Your task to perform on an android device: turn on data saver in the chrome app Image 0: 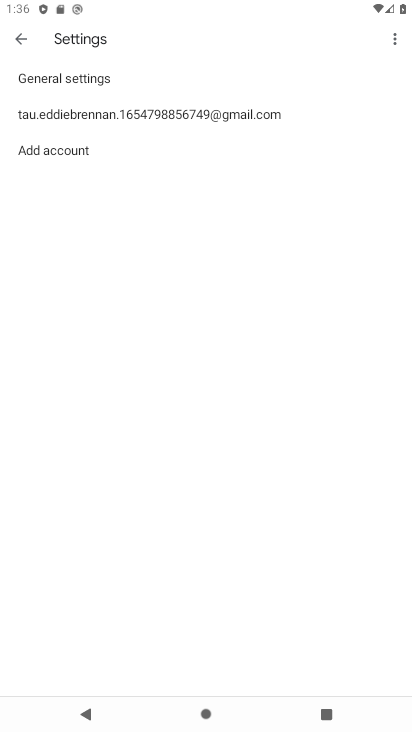
Step 0: press home button
Your task to perform on an android device: turn on data saver in the chrome app Image 1: 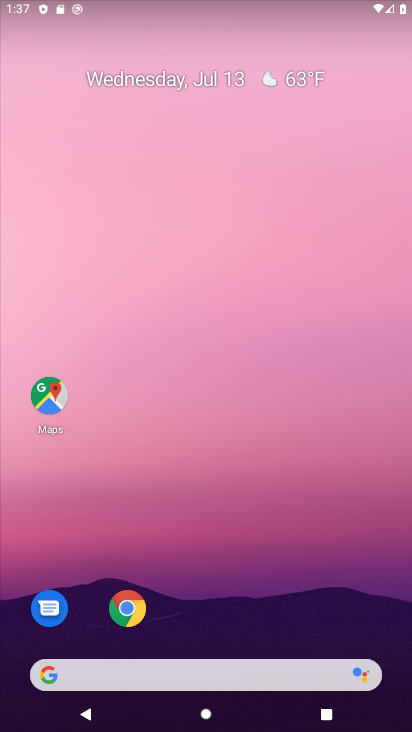
Step 1: drag from (255, 596) to (275, 6)
Your task to perform on an android device: turn on data saver in the chrome app Image 2: 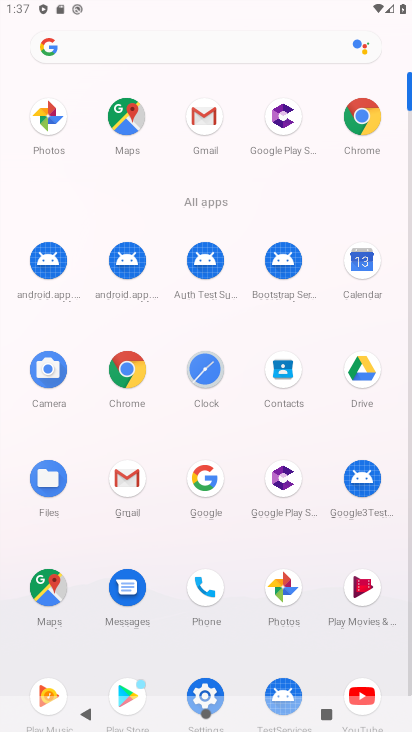
Step 2: click (133, 371)
Your task to perform on an android device: turn on data saver in the chrome app Image 3: 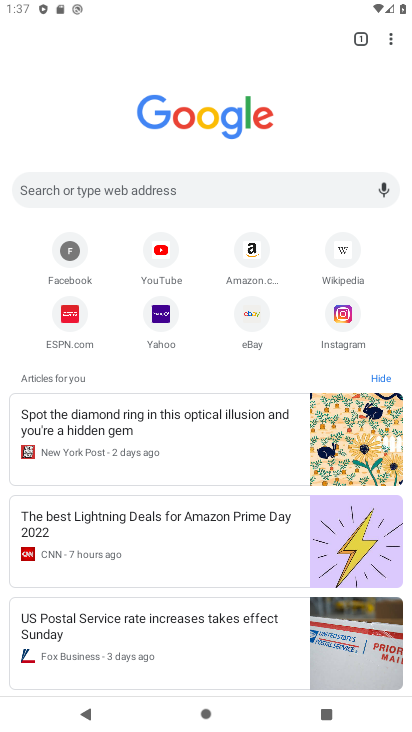
Step 3: click (404, 35)
Your task to perform on an android device: turn on data saver in the chrome app Image 4: 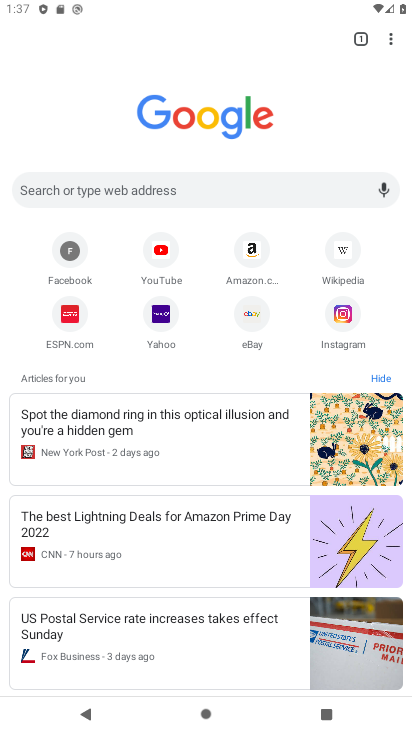
Step 4: click (398, 43)
Your task to perform on an android device: turn on data saver in the chrome app Image 5: 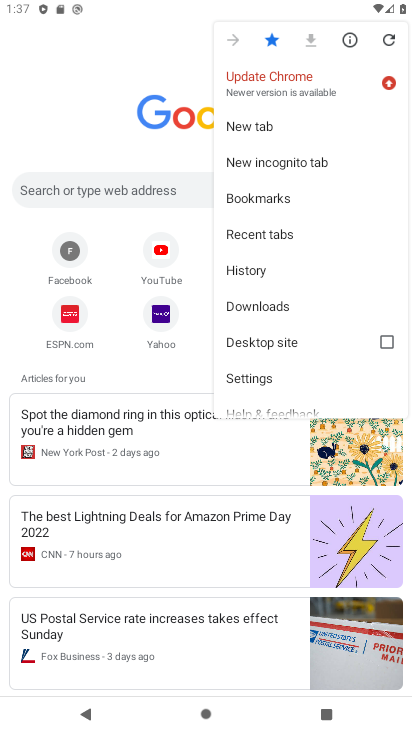
Step 5: click (257, 378)
Your task to perform on an android device: turn on data saver in the chrome app Image 6: 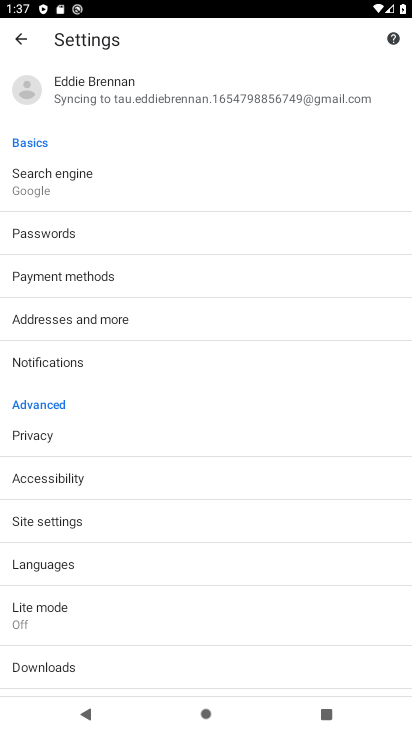
Step 6: drag from (123, 647) to (132, 197)
Your task to perform on an android device: turn on data saver in the chrome app Image 7: 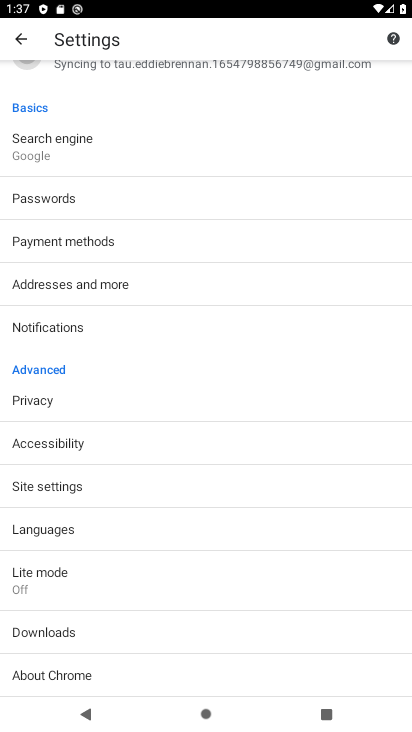
Step 7: click (58, 584)
Your task to perform on an android device: turn on data saver in the chrome app Image 8: 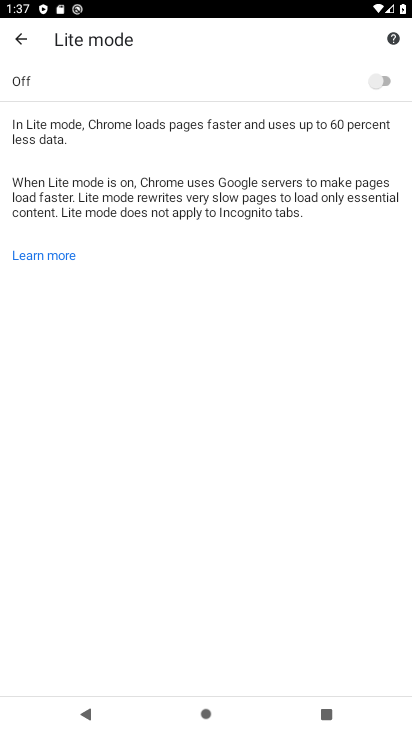
Step 8: click (372, 86)
Your task to perform on an android device: turn on data saver in the chrome app Image 9: 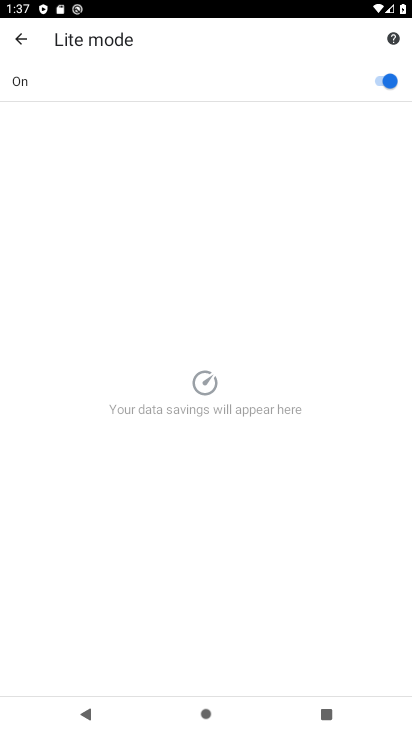
Step 9: task complete